Your task to perform on an android device: empty trash in the gmail app Image 0: 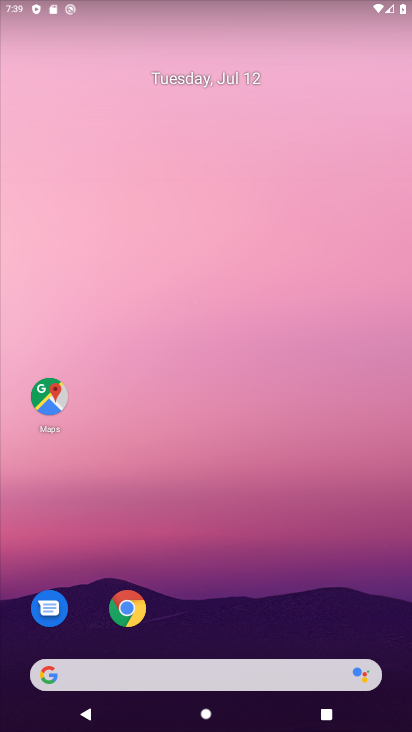
Step 0: drag from (229, 627) to (203, 68)
Your task to perform on an android device: empty trash in the gmail app Image 1: 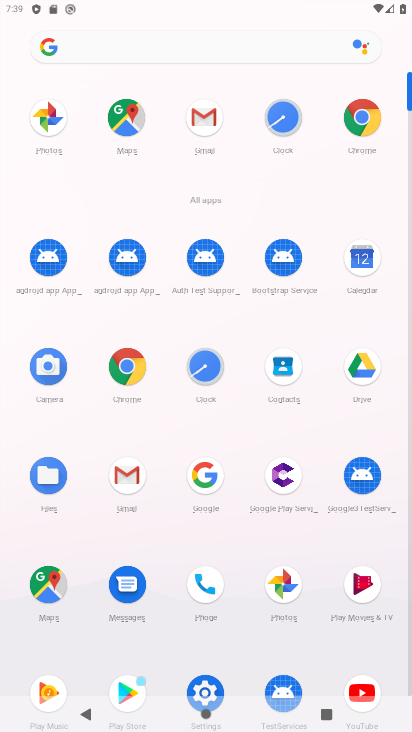
Step 1: click (124, 468)
Your task to perform on an android device: empty trash in the gmail app Image 2: 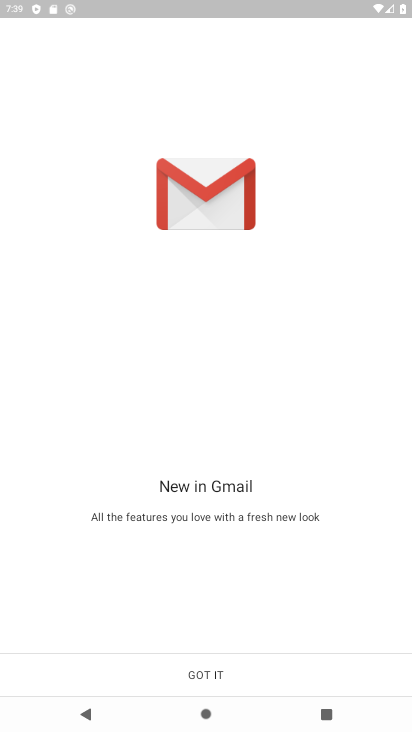
Step 2: click (255, 678)
Your task to perform on an android device: empty trash in the gmail app Image 3: 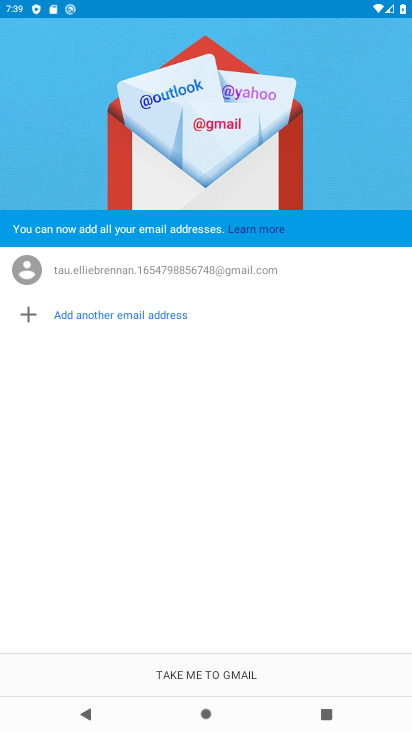
Step 3: click (255, 675)
Your task to perform on an android device: empty trash in the gmail app Image 4: 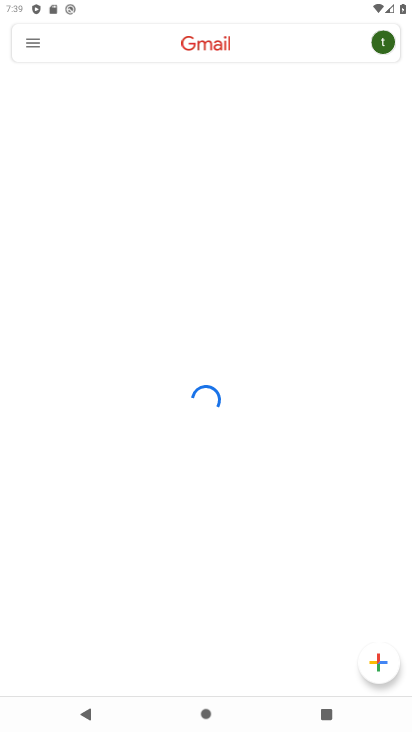
Step 4: drag from (23, 42) to (24, 267)
Your task to perform on an android device: empty trash in the gmail app Image 5: 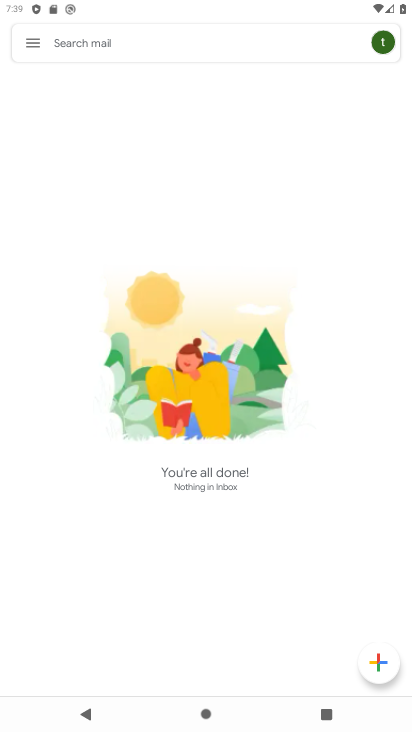
Step 5: click (23, 37)
Your task to perform on an android device: empty trash in the gmail app Image 6: 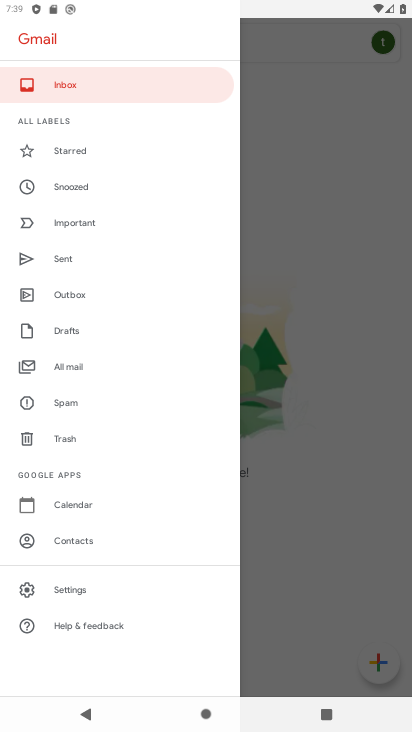
Step 6: click (66, 447)
Your task to perform on an android device: empty trash in the gmail app Image 7: 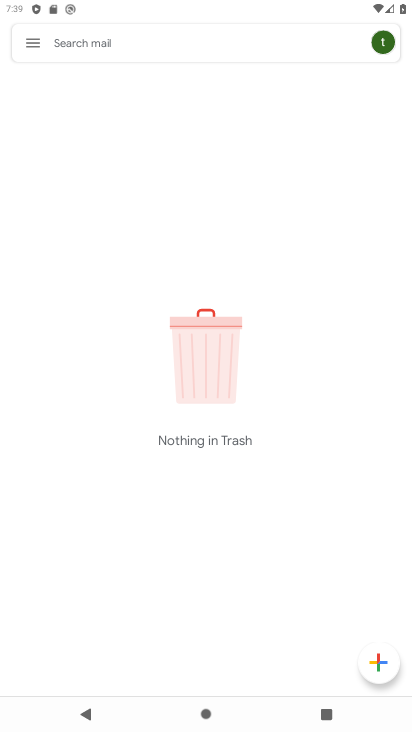
Step 7: task complete